Your task to perform on an android device: visit the assistant section in the google photos Image 0: 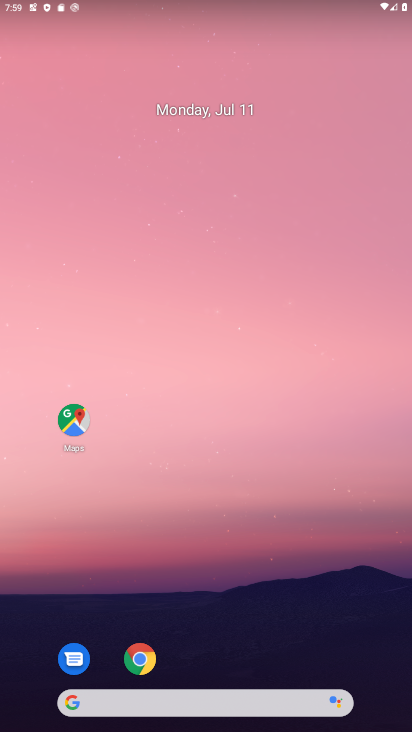
Step 0: drag from (190, 680) to (155, 1)
Your task to perform on an android device: visit the assistant section in the google photos Image 1: 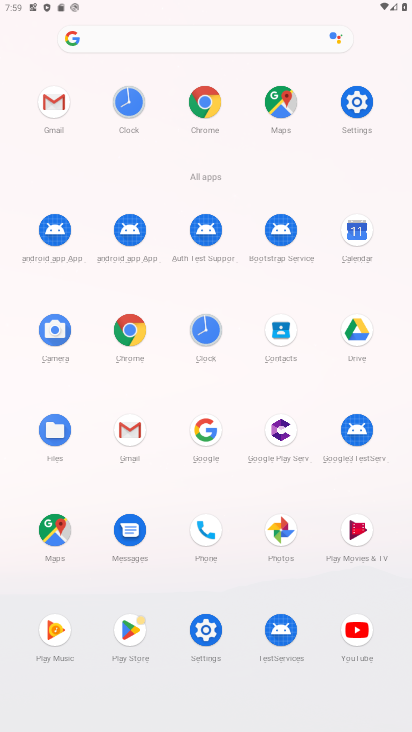
Step 1: click (284, 528)
Your task to perform on an android device: visit the assistant section in the google photos Image 2: 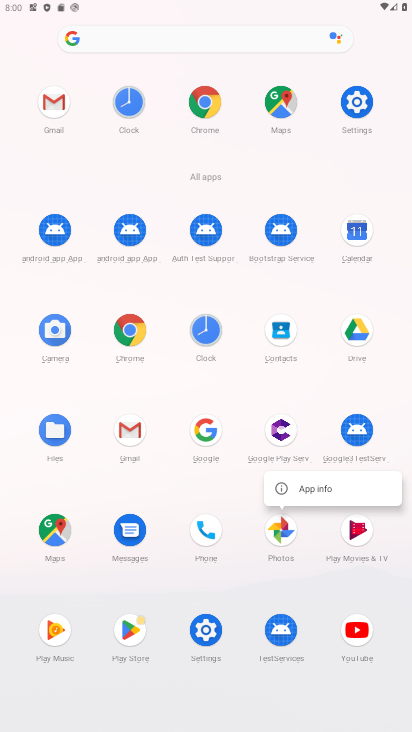
Step 2: click (320, 492)
Your task to perform on an android device: visit the assistant section in the google photos Image 3: 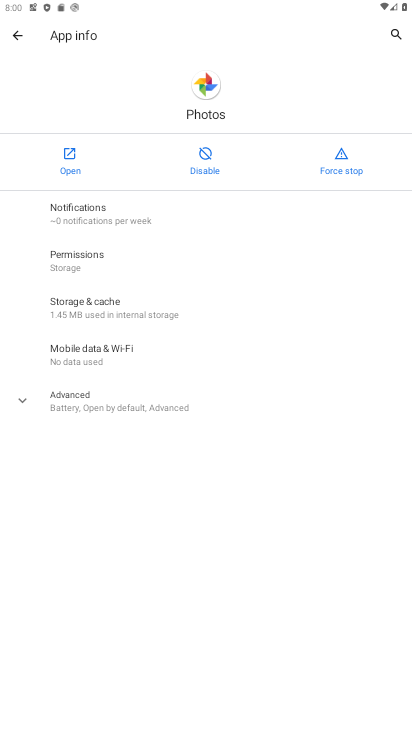
Step 3: click (58, 162)
Your task to perform on an android device: visit the assistant section in the google photos Image 4: 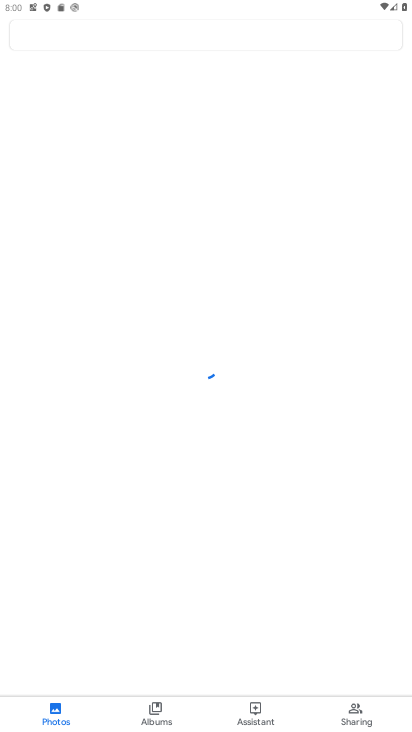
Step 4: drag from (207, 665) to (249, 209)
Your task to perform on an android device: visit the assistant section in the google photos Image 5: 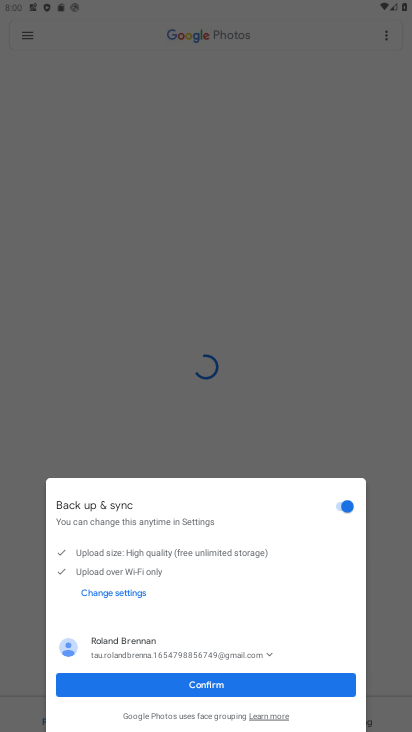
Step 5: drag from (240, 429) to (282, 153)
Your task to perform on an android device: visit the assistant section in the google photos Image 6: 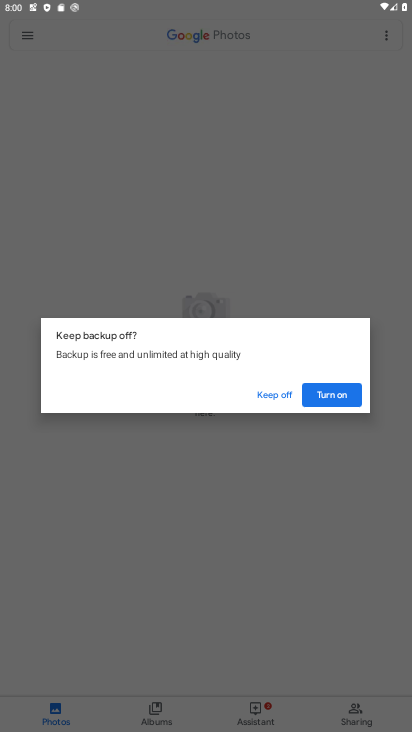
Step 6: click (281, 392)
Your task to perform on an android device: visit the assistant section in the google photos Image 7: 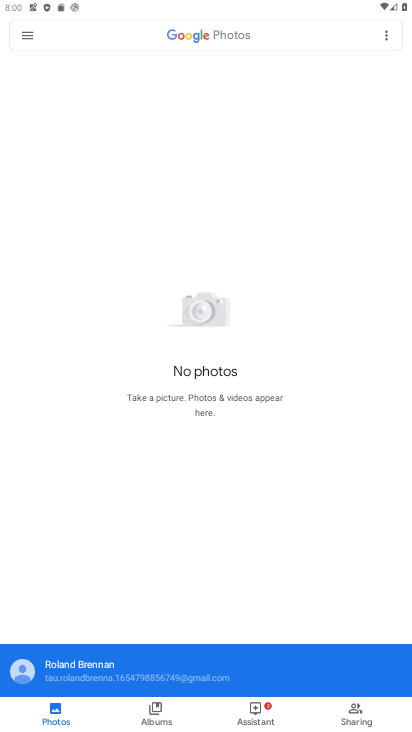
Step 7: click (257, 717)
Your task to perform on an android device: visit the assistant section in the google photos Image 8: 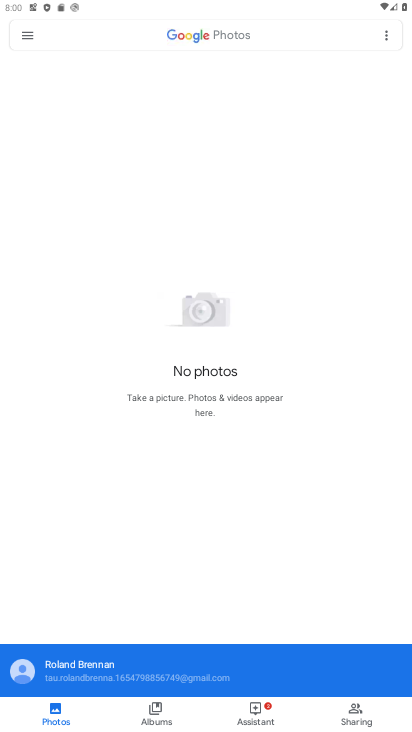
Step 8: click (257, 717)
Your task to perform on an android device: visit the assistant section in the google photos Image 9: 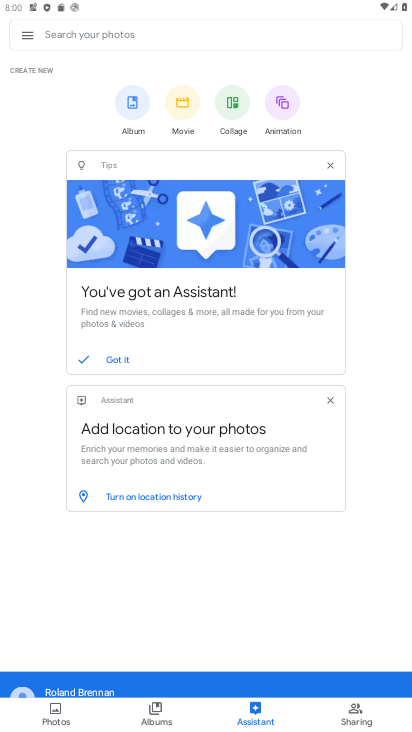
Step 9: task complete